Your task to perform on an android device: delete the emails in spam in the gmail app Image 0: 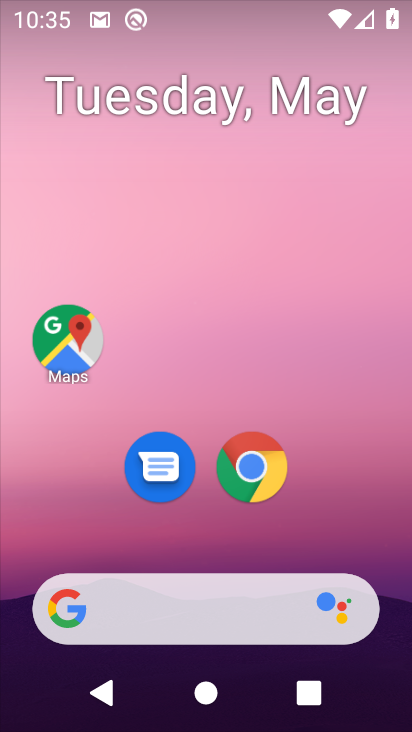
Step 0: drag from (176, 523) to (245, 124)
Your task to perform on an android device: delete the emails in spam in the gmail app Image 1: 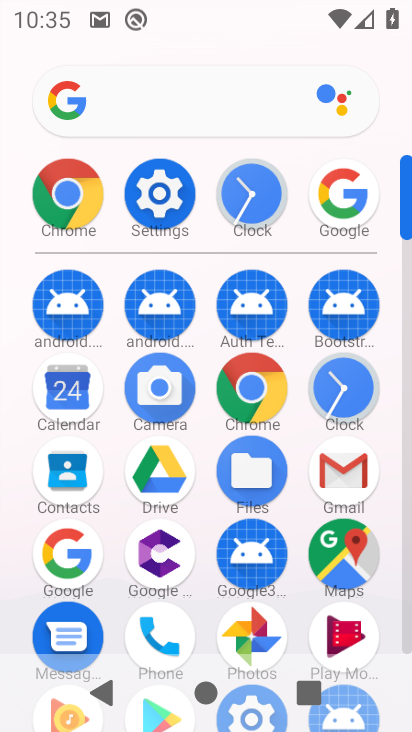
Step 1: click (344, 476)
Your task to perform on an android device: delete the emails in spam in the gmail app Image 2: 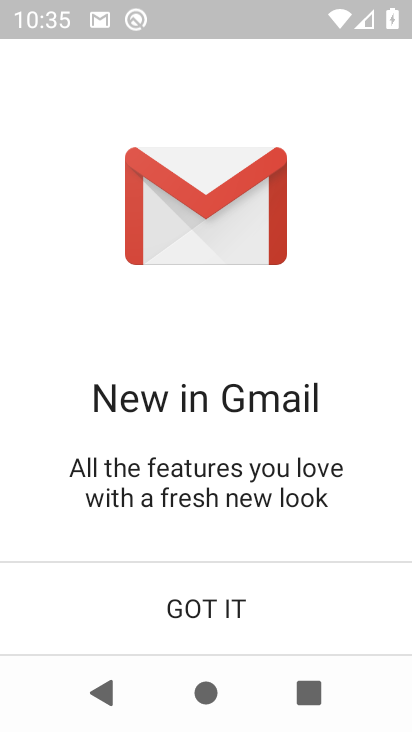
Step 2: click (200, 604)
Your task to perform on an android device: delete the emails in spam in the gmail app Image 3: 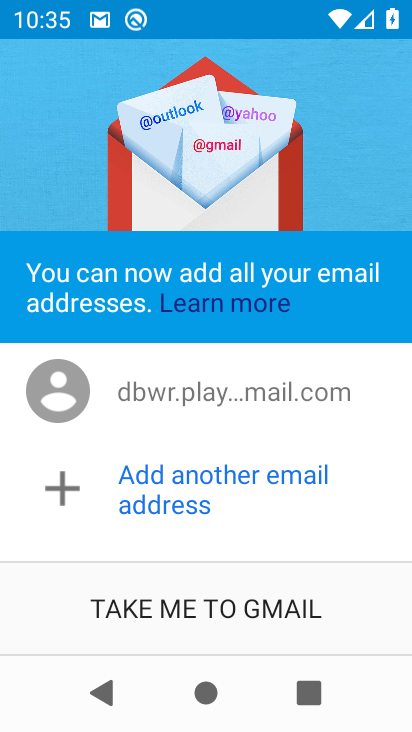
Step 3: click (175, 627)
Your task to perform on an android device: delete the emails in spam in the gmail app Image 4: 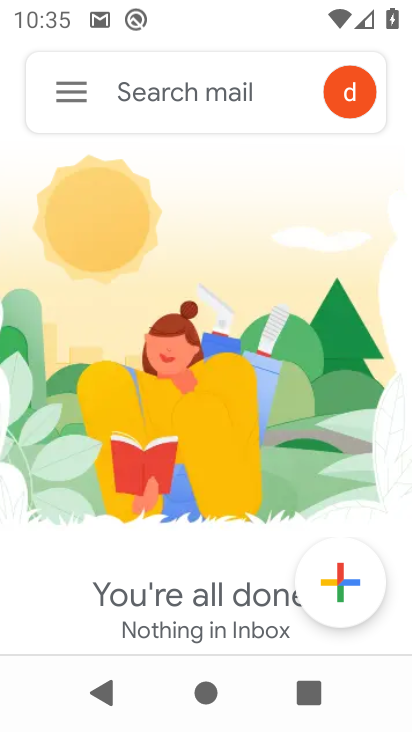
Step 4: drag from (171, 602) to (319, 222)
Your task to perform on an android device: delete the emails in spam in the gmail app Image 5: 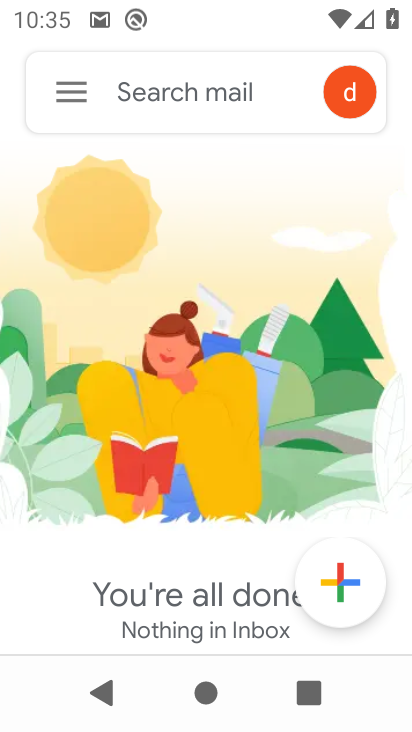
Step 5: click (78, 98)
Your task to perform on an android device: delete the emails in spam in the gmail app Image 6: 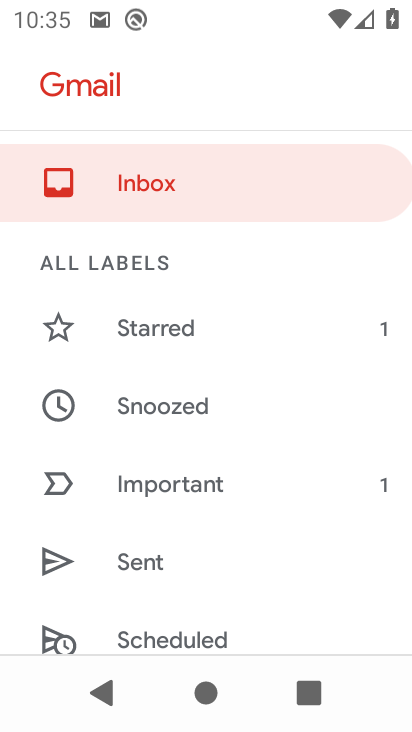
Step 6: drag from (176, 528) to (289, 29)
Your task to perform on an android device: delete the emails in spam in the gmail app Image 7: 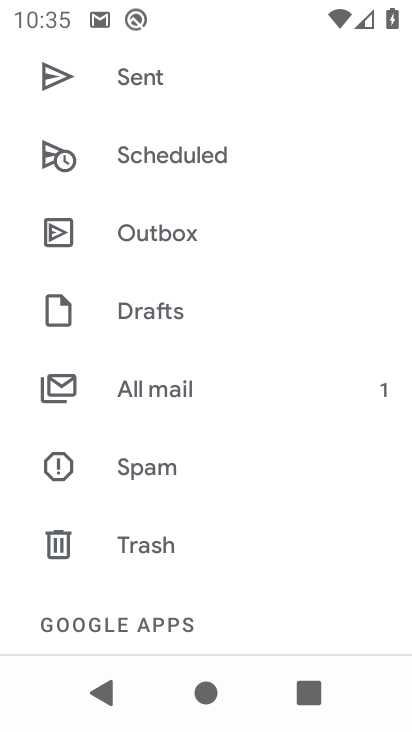
Step 7: click (136, 470)
Your task to perform on an android device: delete the emails in spam in the gmail app Image 8: 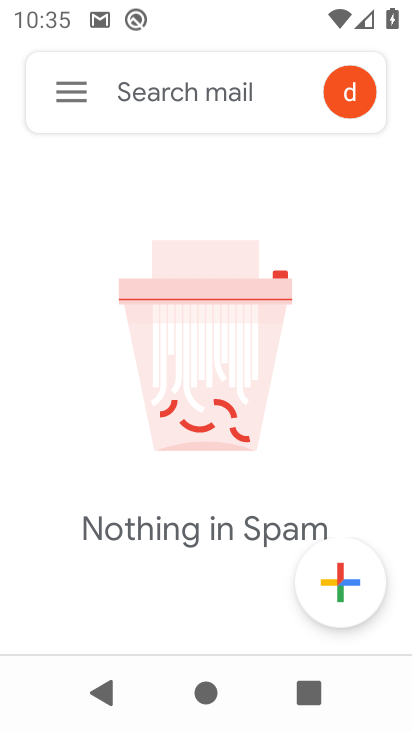
Step 8: task complete